Your task to perform on an android device: change notification settings in the gmail app Image 0: 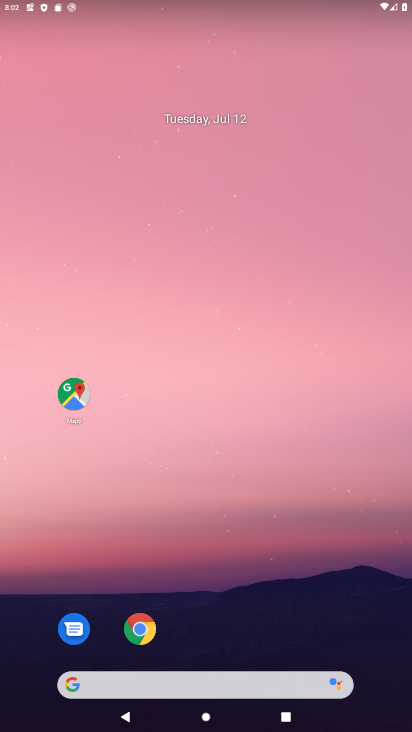
Step 0: drag from (207, 654) to (235, 373)
Your task to perform on an android device: change notification settings in the gmail app Image 1: 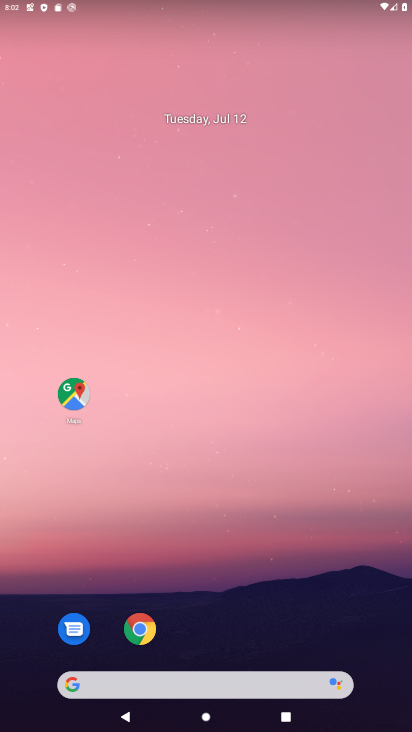
Step 1: drag from (237, 624) to (236, 169)
Your task to perform on an android device: change notification settings in the gmail app Image 2: 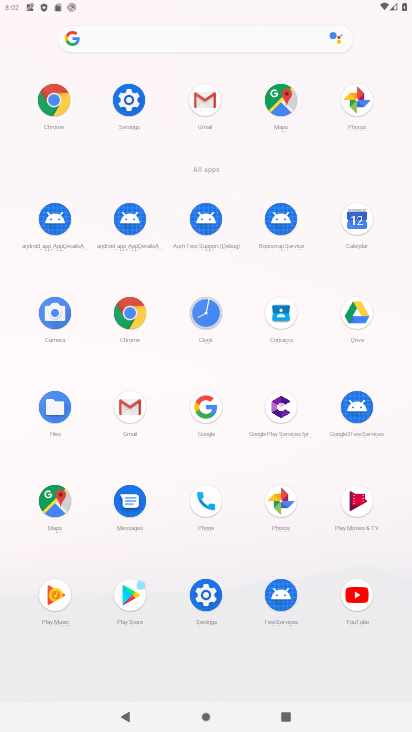
Step 2: click (201, 108)
Your task to perform on an android device: change notification settings in the gmail app Image 3: 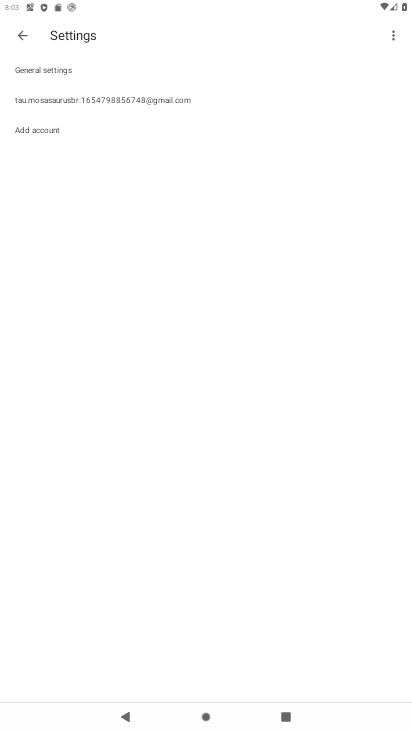
Step 3: click (53, 61)
Your task to perform on an android device: change notification settings in the gmail app Image 4: 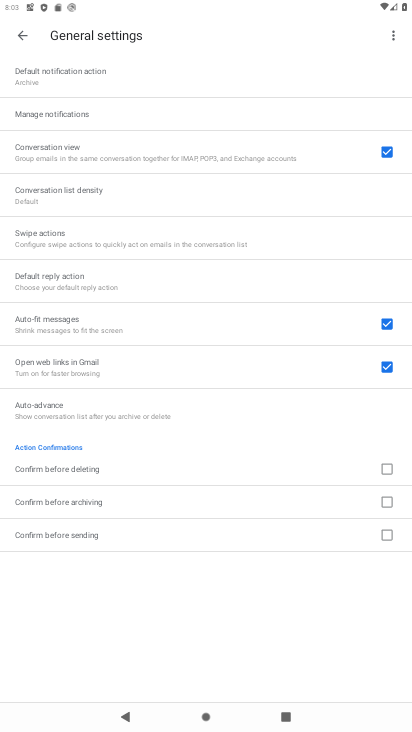
Step 4: click (96, 116)
Your task to perform on an android device: change notification settings in the gmail app Image 5: 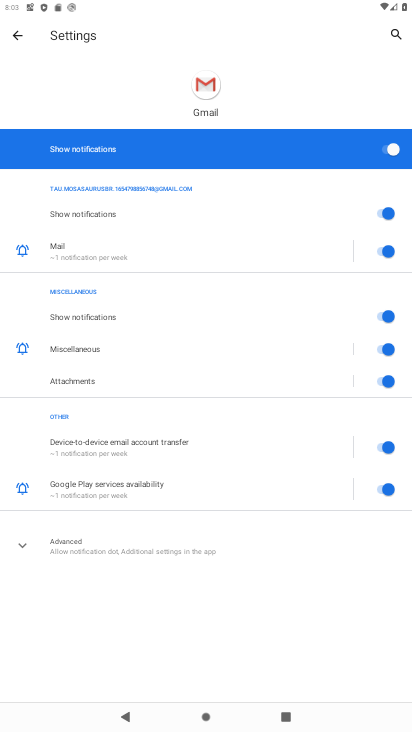
Step 5: click (380, 146)
Your task to perform on an android device: change notification settings in the gmail app Image 6: 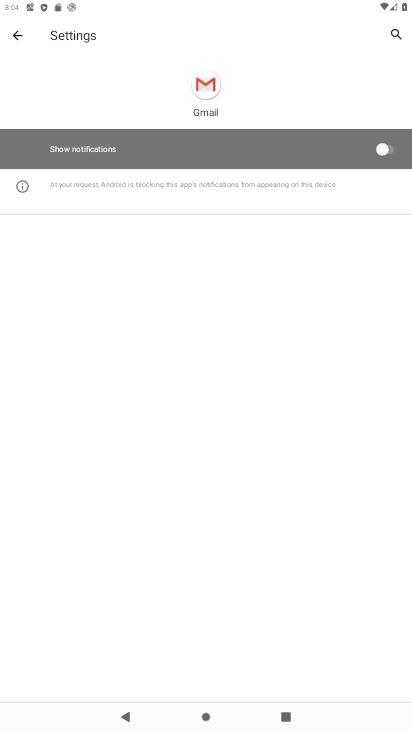
Step 6: task complete